Your task to perform on an android device: snooze an email in the gmail app Image 0: 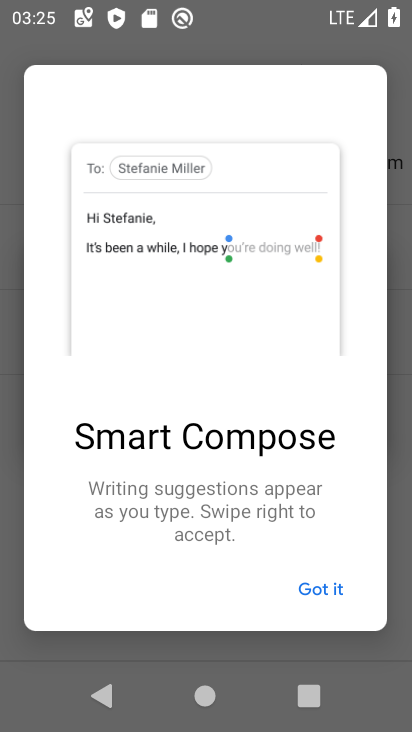
Step 0: press home button
Your task to perform on an android device: snooze an email in the gmail app Image 1: 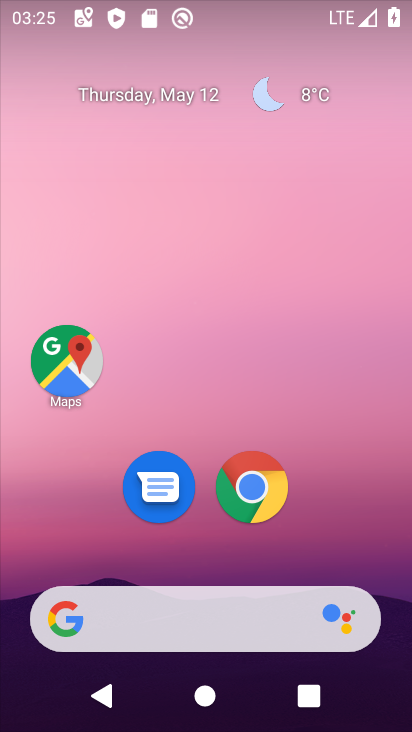
Step 1: drag from (372, 527) to (368, 22)
Your task to perform on an android device: snooze an email in the gmail app Image 2: 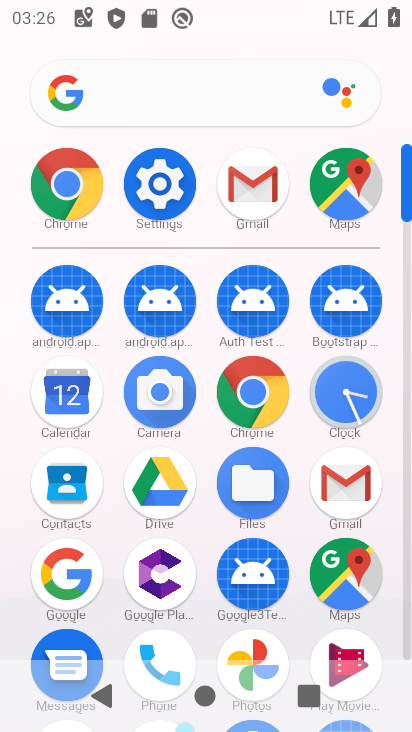
Step 2: click (254, 179)
Your task to perform on an android device: snooze an email in the gmail app Image 3: 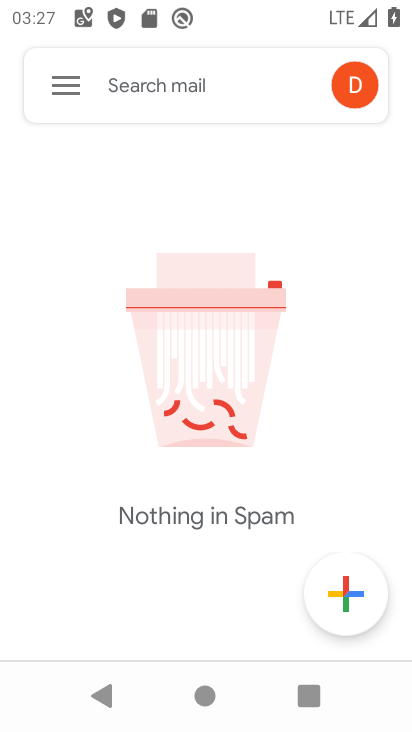
Step 3: click (45, 67)
Your task to perform on an android device: snooze an email in the gmail app Image 4: 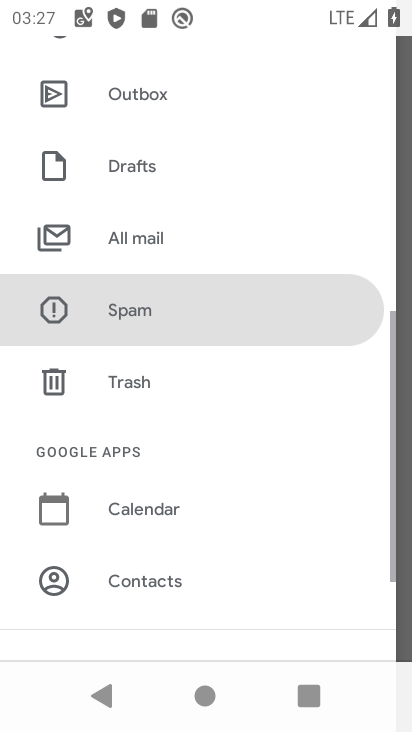
Step 4: click (152, 239)
Your task to perform on an android device: snooze an email in the gmail app Image 5: 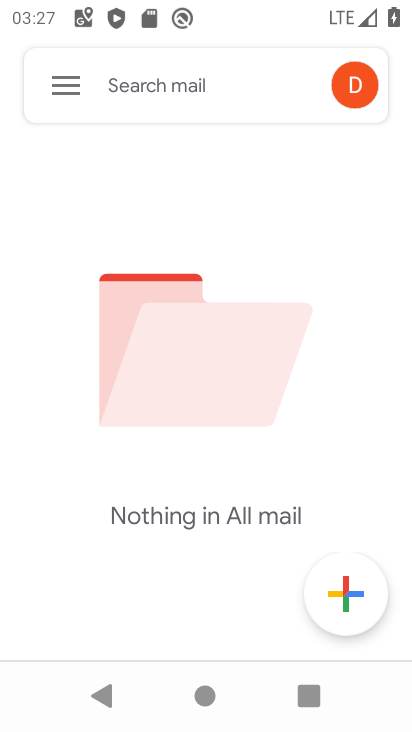
Step 5: task complete